Your task to perform on an android device: turn off location Image 0: 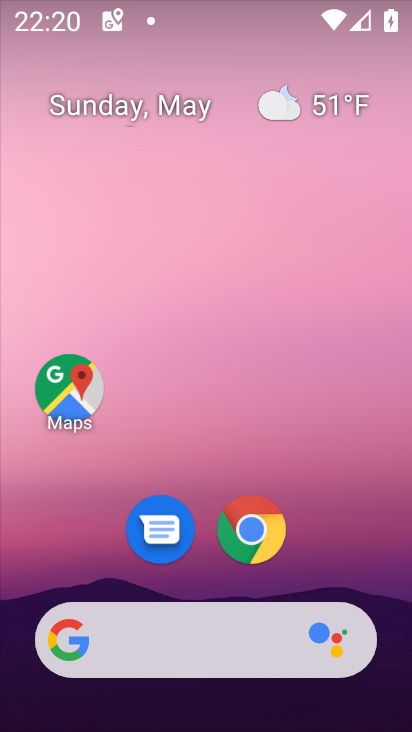
Step 0: drag from (282, 644) to (191, 80)
Your task to perform on an android device: turn off location Image 1: 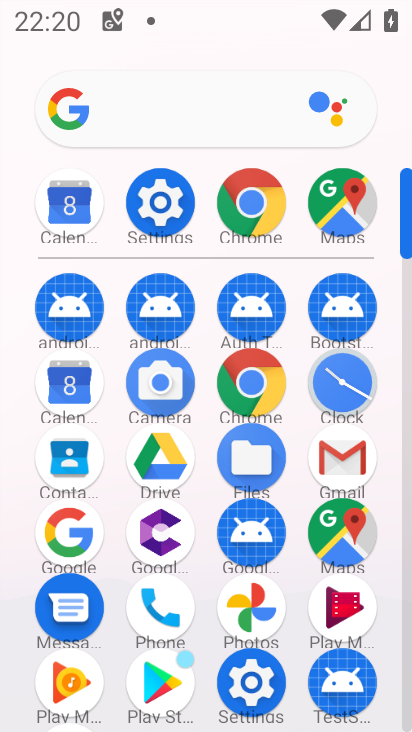
Step 1: click (264, 676)
Your task to perform on an android device: turn off location Image 2: 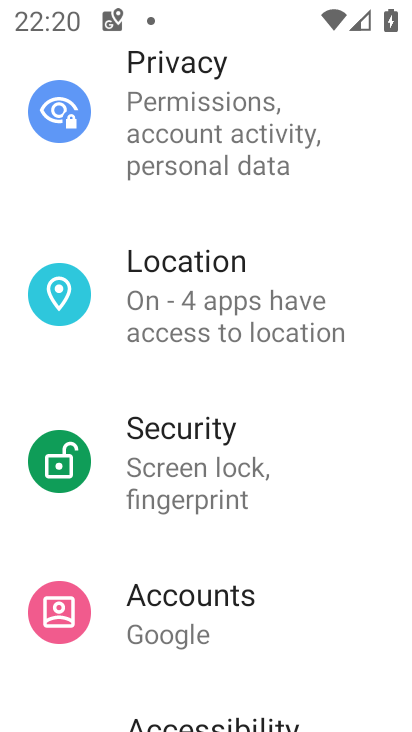
Step 2: drag from (261, 676) to (256, 499)
Your task to perform on an android device: turn off location Image 3: 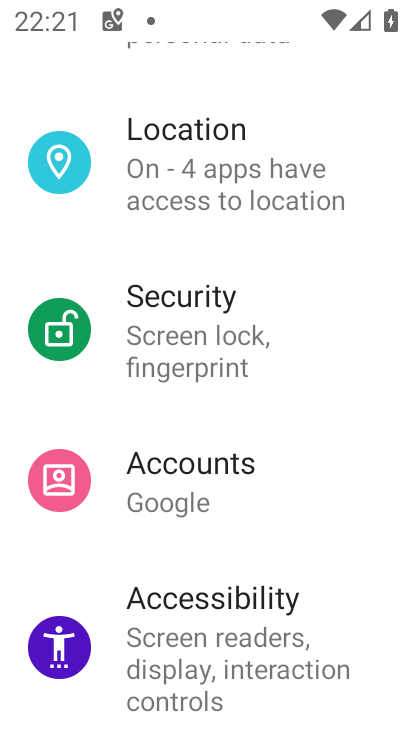
Step 3: click (251, 193)
Your task to perform on an android device: turn off location Image 4: 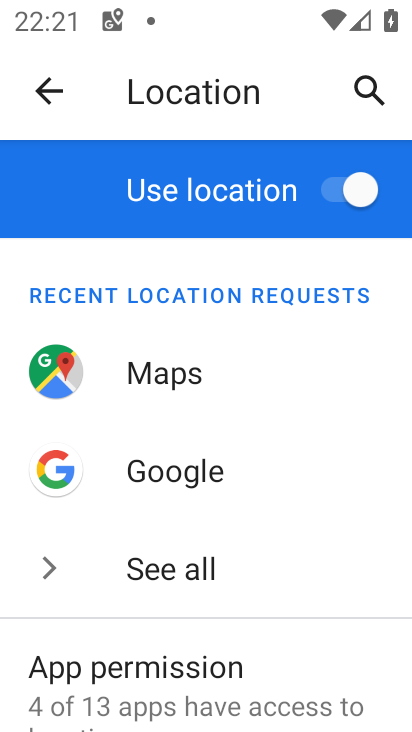
Step 4: click (335, 185)
Your task to perform on an android device: turn off location Image 5: 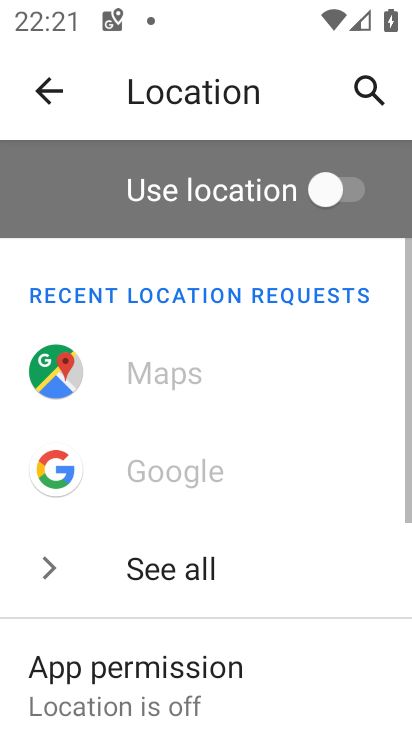
Step 5: task complete